Your task to perform on an android device: delete location history Image 0: 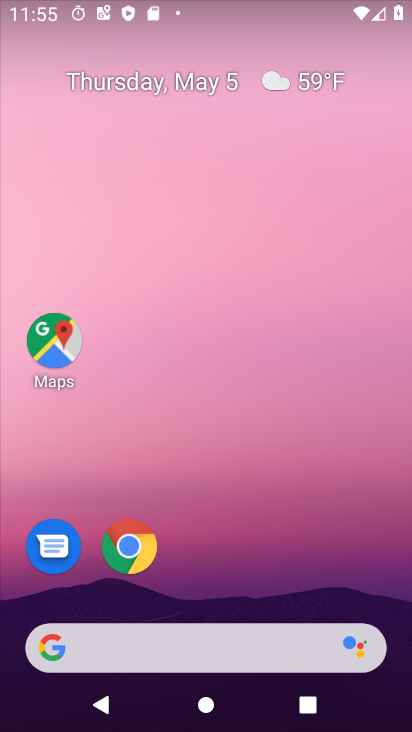
Step 0: drag from (248, 568) to (307, 149)
Your task to perform on an android device: delete location history Image 1: 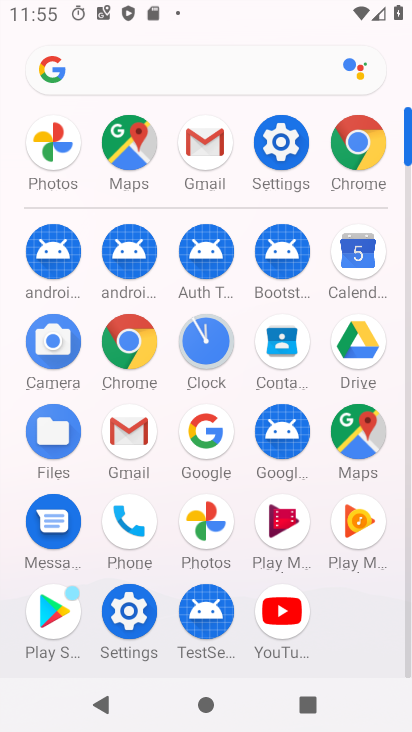
Step 1: click (276, 159)
Your task to perform on an android device: delete location history Image 2: 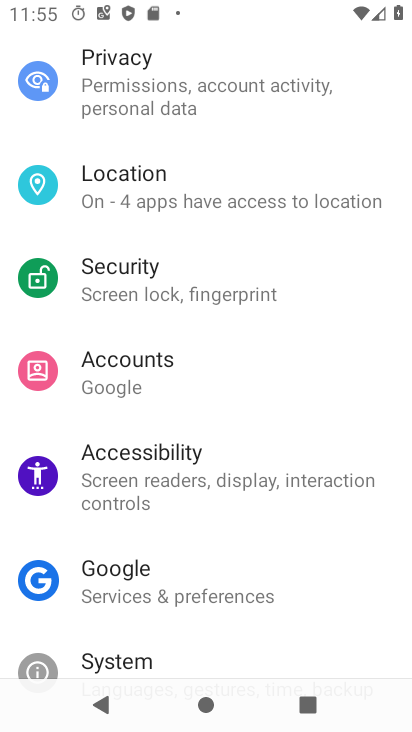
Step 2: click (176, 190)
Your task to perform on an android device: delete location history Image 3: 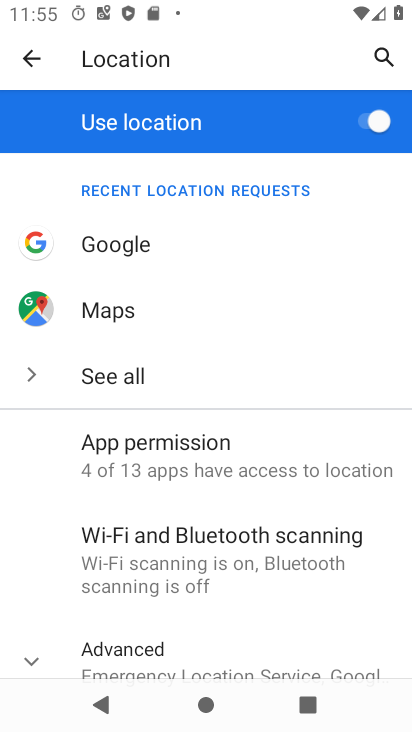
Step 3: drag from (257, 588) to (303, 401)
Your task to perform on an android device: delete location history Image 4: 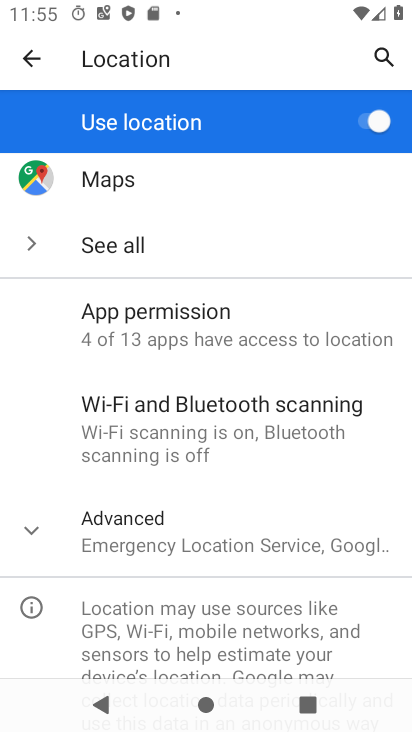
Step 4: click (266, 546)
Your task to perform on an android device: delete location history Image 5: 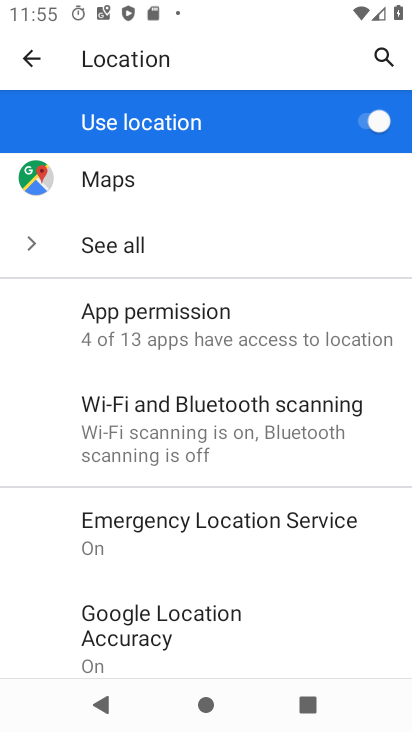
Step 5: drag from (291, 617) to (302, 310)
Your task to perform on an android device: delete location history Image 6: 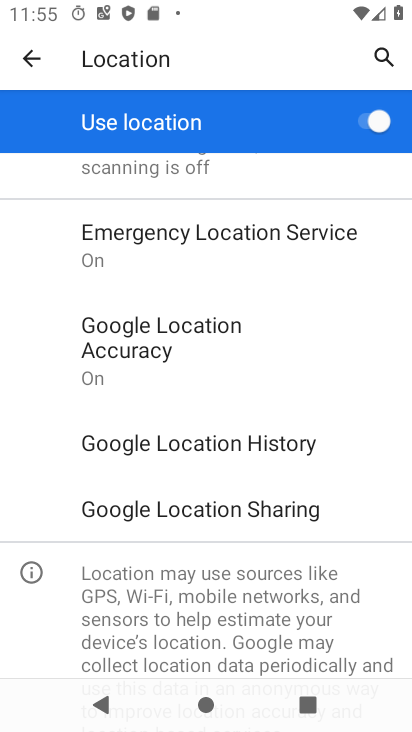
Step 6: click (285, 443)
Your task to perform on an android device: delete location history Image 7: 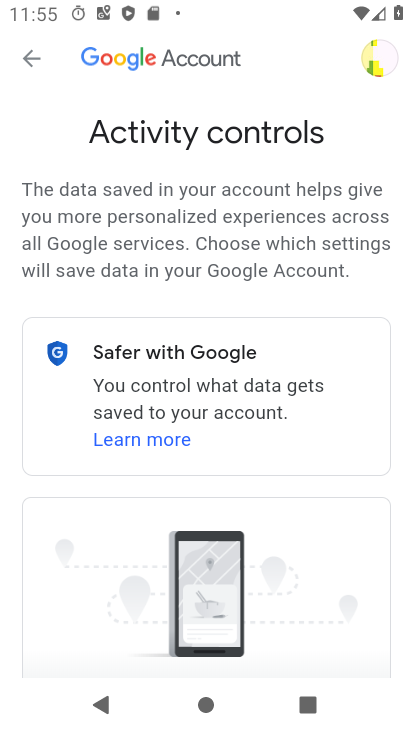
Step 7: drag from (314, 527) to (309, 212)
Your task to perform on an android device: delete location history Image 8: 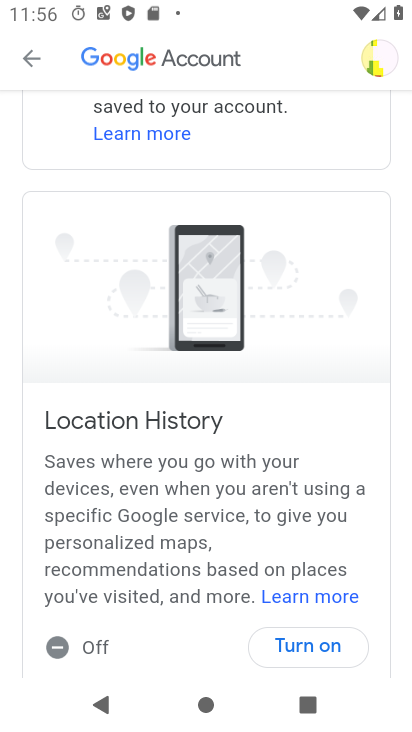
Step 8: drag from (315, 598) to (312, 216)
Your task to perform on an android device: delete location history Image 9: 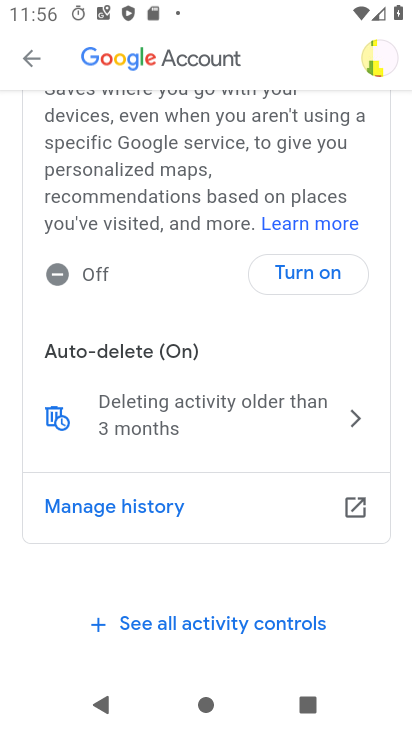
Step 9: click (353, 501)
Your task to perform on an android device: delete location history Image 10: 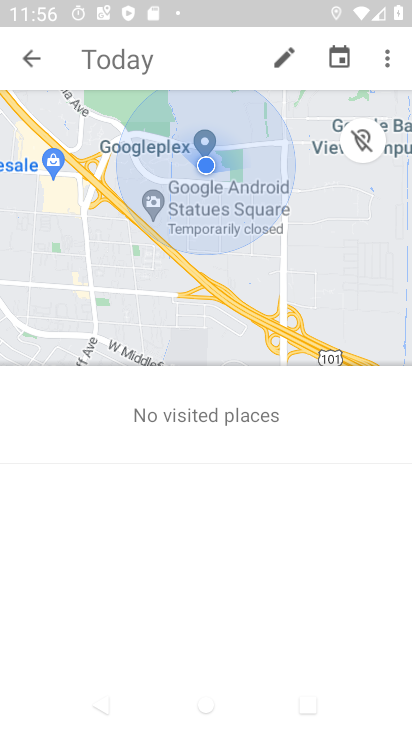
Step 10: click (388, 60)
Your task to perform on an android device: delete location history Image 11: 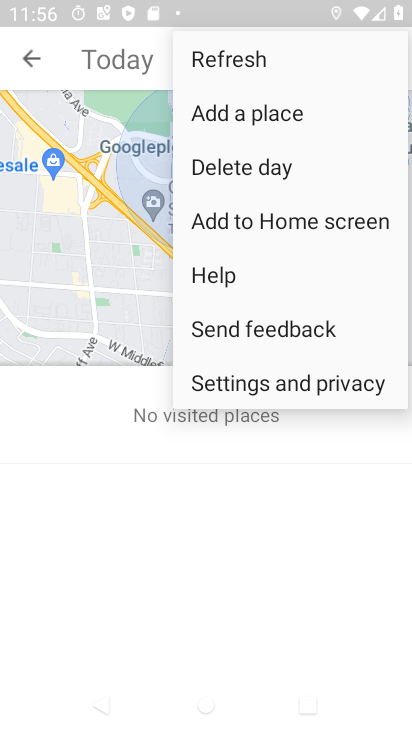
Step 11: click (265, 386)
Your task to perform on an android device: delete location history Image 12: 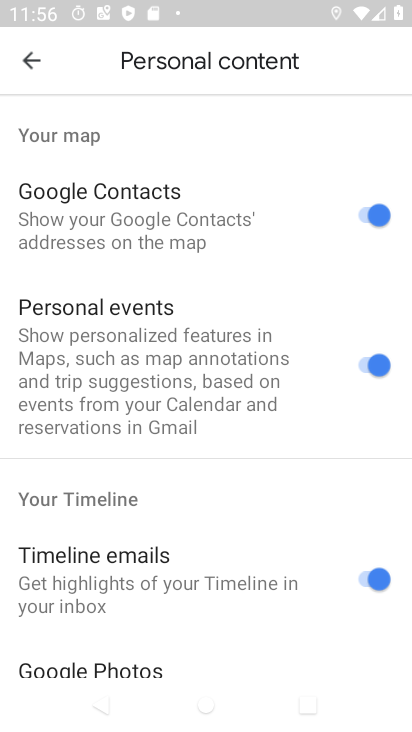
Step 12: drag from (269, 593) to (275, 304)
Your task to perform on an android device: delete location history Image 13: 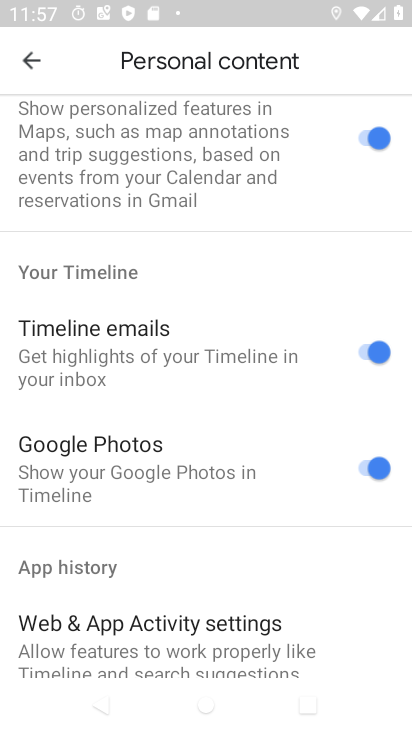
Step 13: drag from (215, 592) to (220, 237)
Your task to perform on an android device: delete location history Image 14: 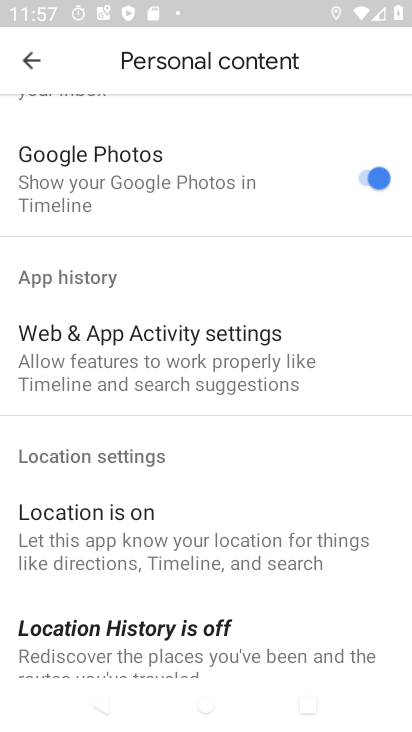
Step 14: drag from (256, 610) to (256, 316)
Your task to perform on an android device: delete location history Image 15: 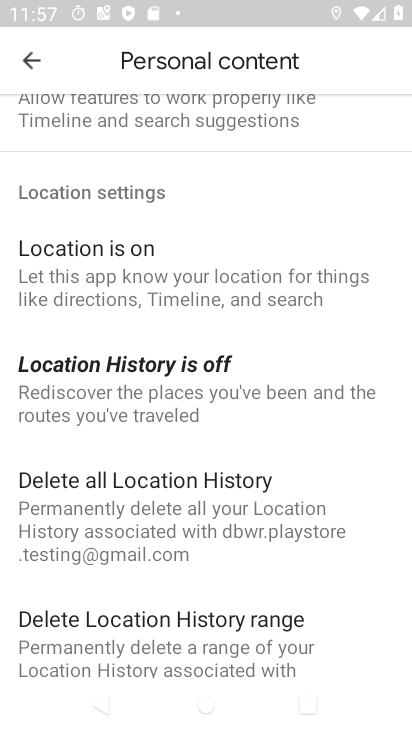
Step 15: click (231, 528)
Your task to perform on an android device: delete location history Image 16: 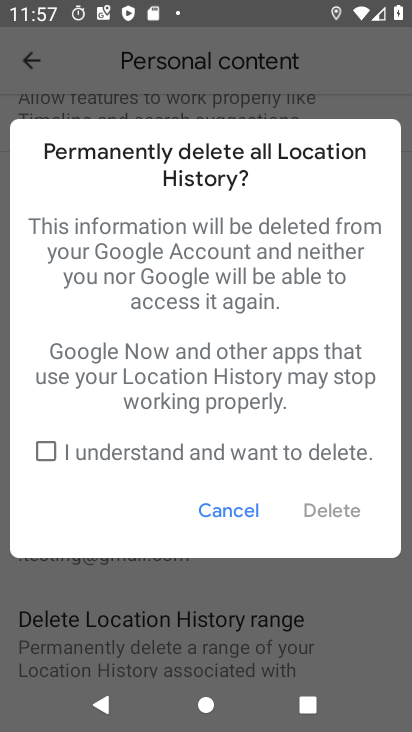
Step 16: click (45, 446)
Your task to perform on an android device: delete location history Image 17: 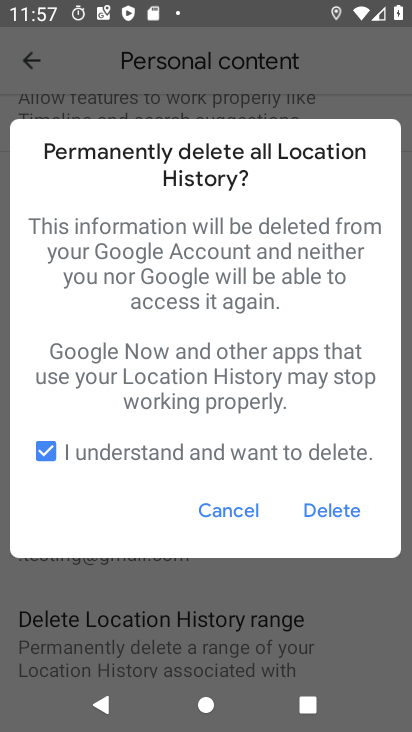
Step 17: click (327, 513)
Your task to perform on an android device: delete location history Image 18: 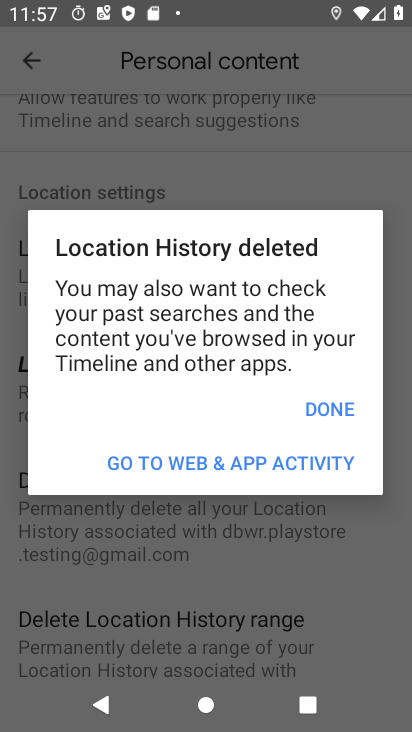
Step 18: click (343, 404)
Your task to perform on an android device: delete location history Image 19: 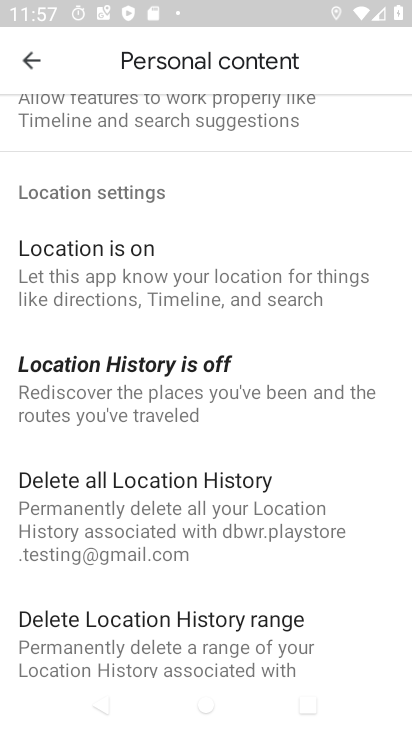
Step 19: task complete